Your task to perform on an android device: Open the calendar and show me this week's events? Image 0: 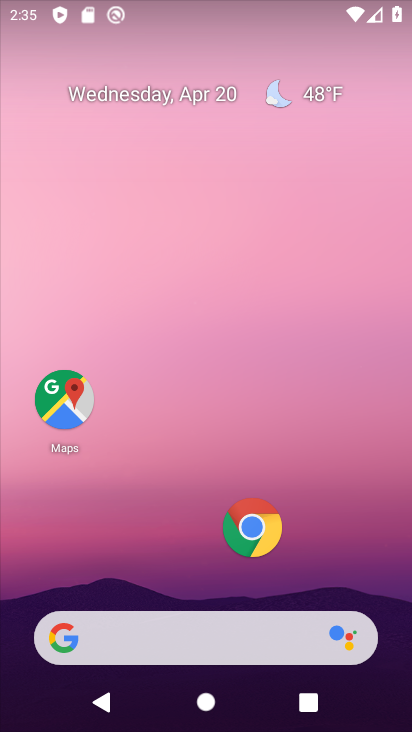
Step 0: click (163, 99)
Your task to perform on an android device: Open the calendar and show me this week's events? Image 1: 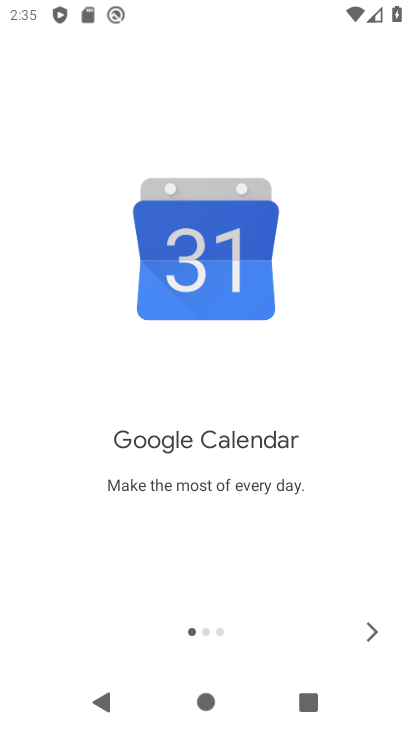
Step 1: click (366, 636)
Your task to perform on an android device: Open the calendar and show me this week's events? Image 2: 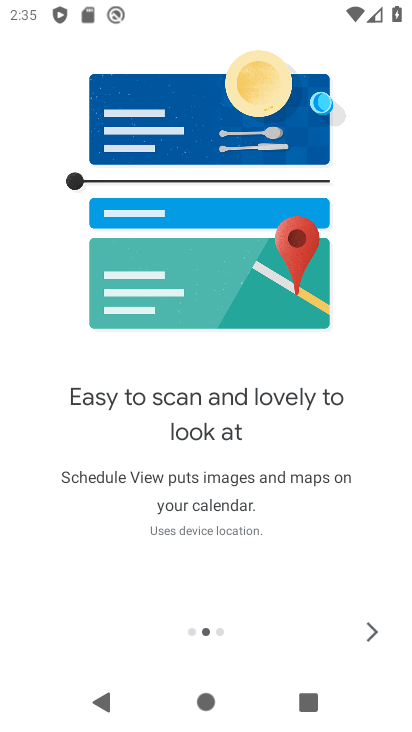
Step 2: click (366, 636)
Your task to perform on an android device: Open the calendar and show me this week's events? Image 3: 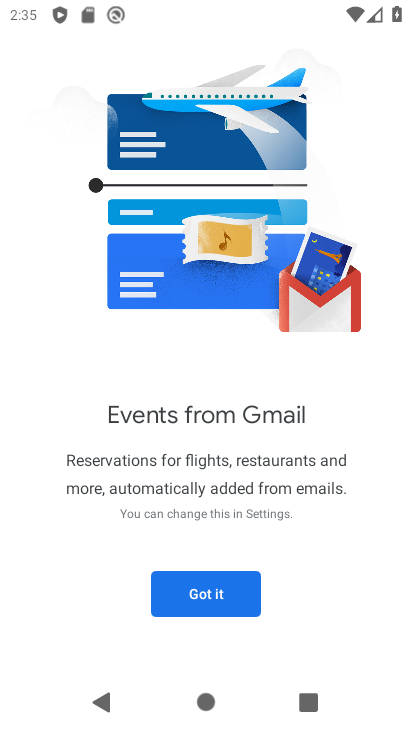
Step 3: click (240, 581)
Your task to perform on an android device: Open the calendar and show me this week's events? Image 4: 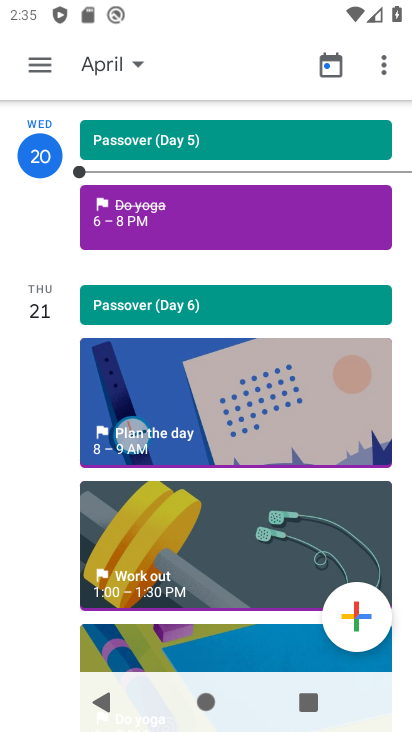
Step 4: click (110, 63)
Your task to perform on an android device: Open the calendar and show me this week's events? Image 5: 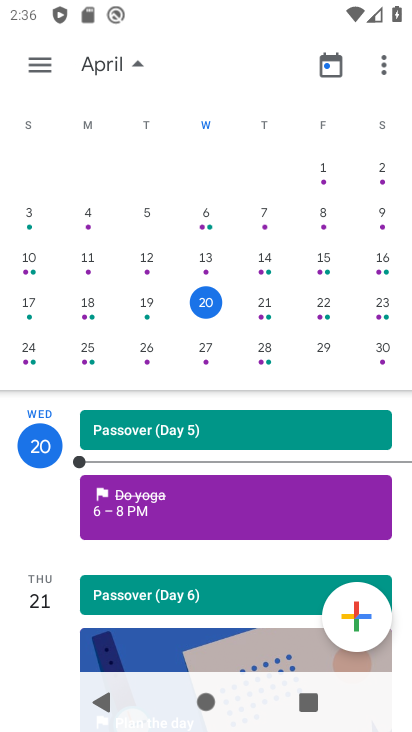
Step 5: task complete